Your task to perform on an android device: turn off airplane mode Image 0: 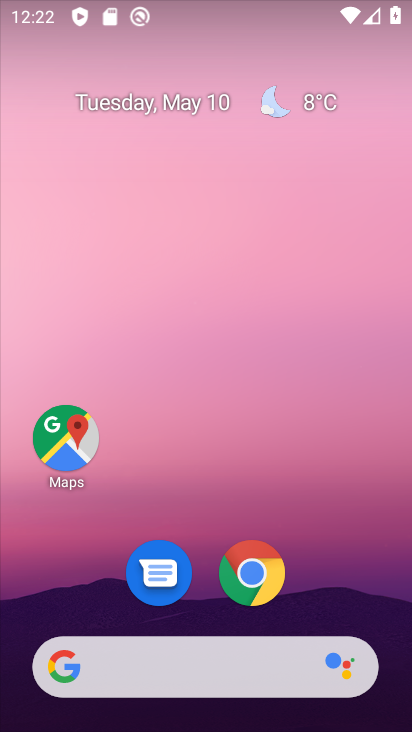
Step 0: drag from (204, 594) to (348, 13)
Your task to perform on an android device: turn off airplane mode Image 1: 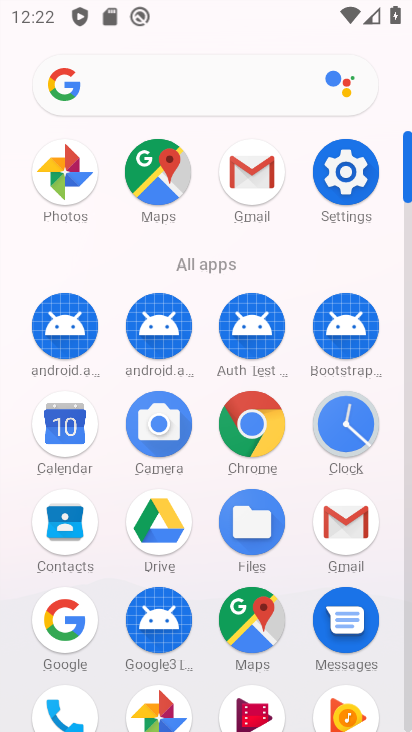
Step 1: click (352, 171)
Your task to perform on an android device: turn off airplane mode Image 2: 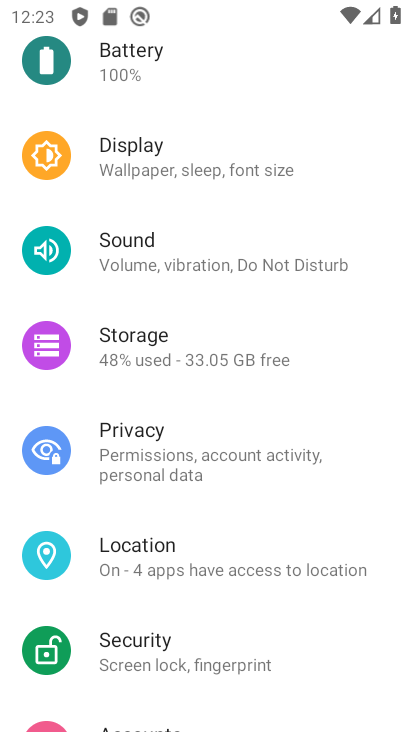
Step 2: drag from (232, 193) to (244, 691)
Your task to perform on an android device: turn off airplane mode Image 3: 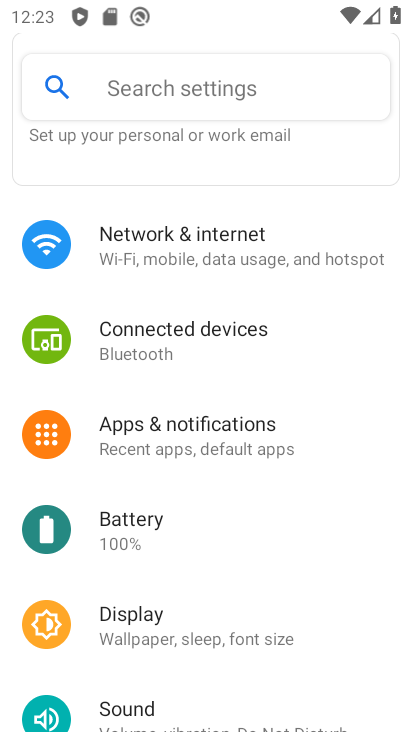
Step 3: click (209, 264)
Your task to perform on an android device: turn off airplane mode Image 4: 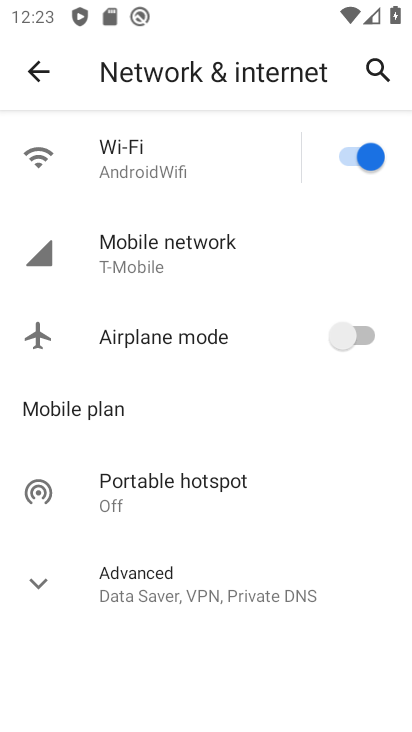
Step 4: task complete